Your task to perform on an android device: add a contact in the contacts app Image 0: 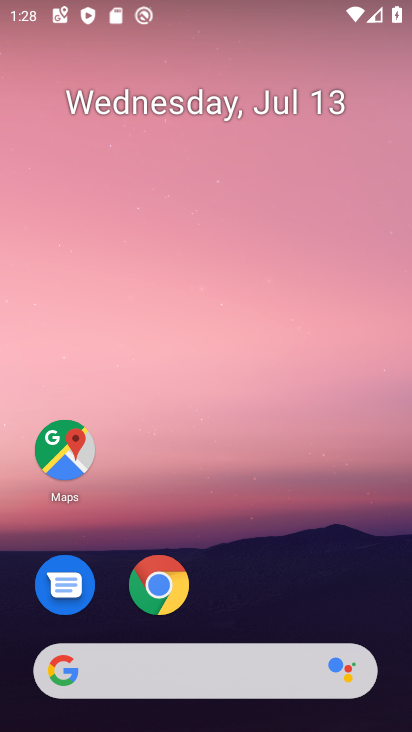
Step 0: drag from (164, 681) to (252, 206)
Your task to perform on an android device: add a contact in the contacts app Image 1: 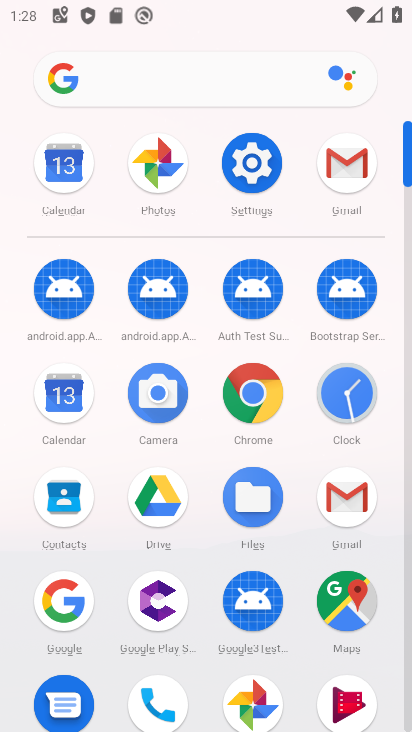
Step 1: click (69, 505)
Your task to perform on an android device: add a contact in the contacts app Image 2: 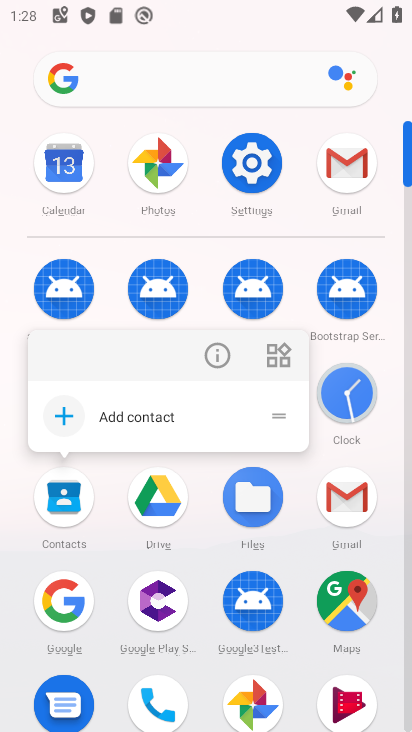
Step 2: click (65, 508)
Your task to perform on an android device: add a contact in the contacts app Image 3: 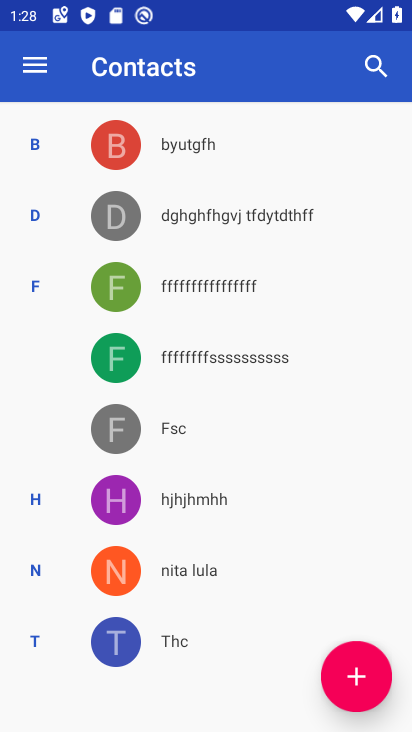
Step 3: click (348, 682)
Your task to perform on an android device: add a contact in the contacts app Image 4: 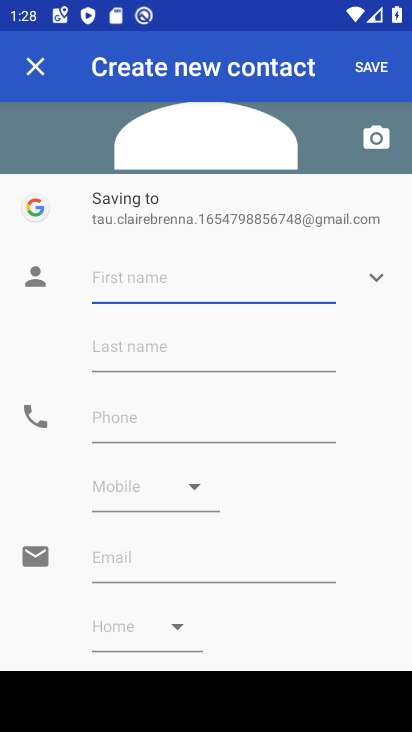
Step 4: click (162, 285)
Your task to perform on an android device: add a contact in the contacts app Image 5: 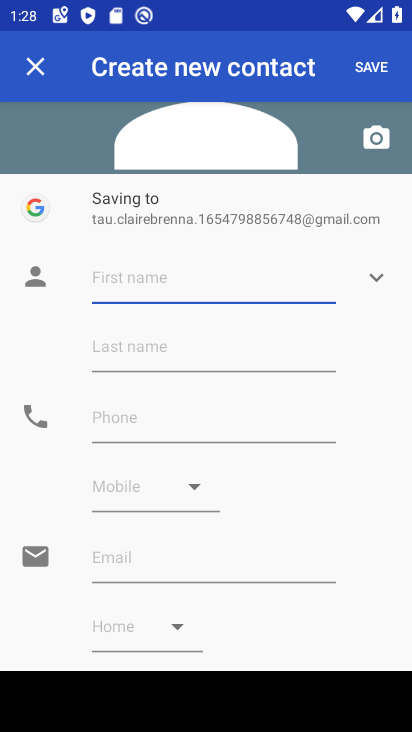
Step 5: type "mnjhuygh"
Your task to perform on an android device: add a contact in the contacts app Image 6: 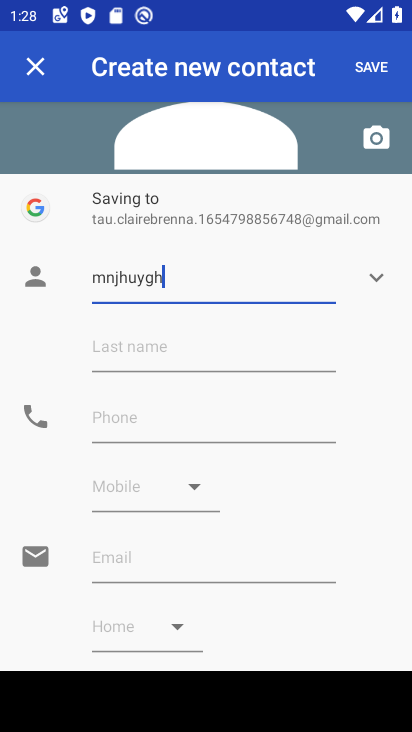
Step 6: click (100, 415)
Your task to perform on an android device: add a contact in the contacts app Image 7: 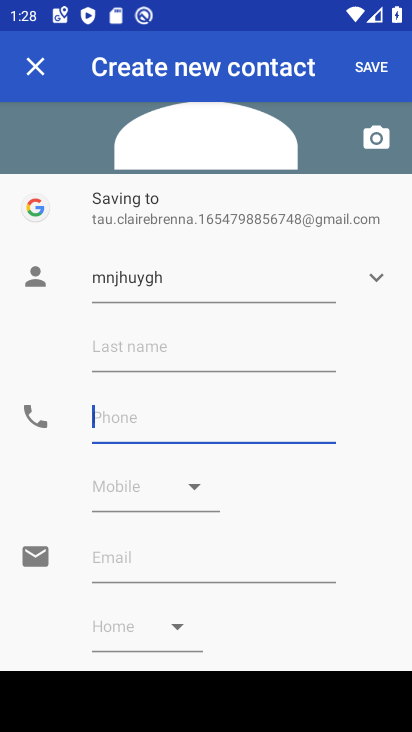
Step 7: type "8756765"
Your task to perform on an android device: add a contact in the contacts app Image 8: 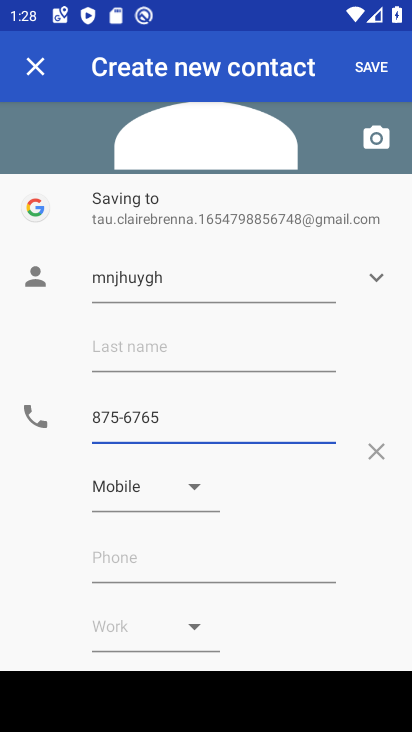
Step 8: click (376, 71)
Your task to perform on an android device: add a contact in the contacts app Image 9: 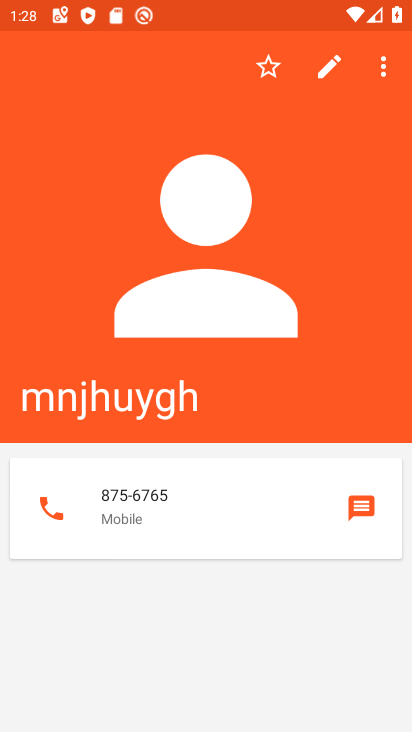
Step 9: task complete